Your task to perform on an android device: Open the map Image 0: 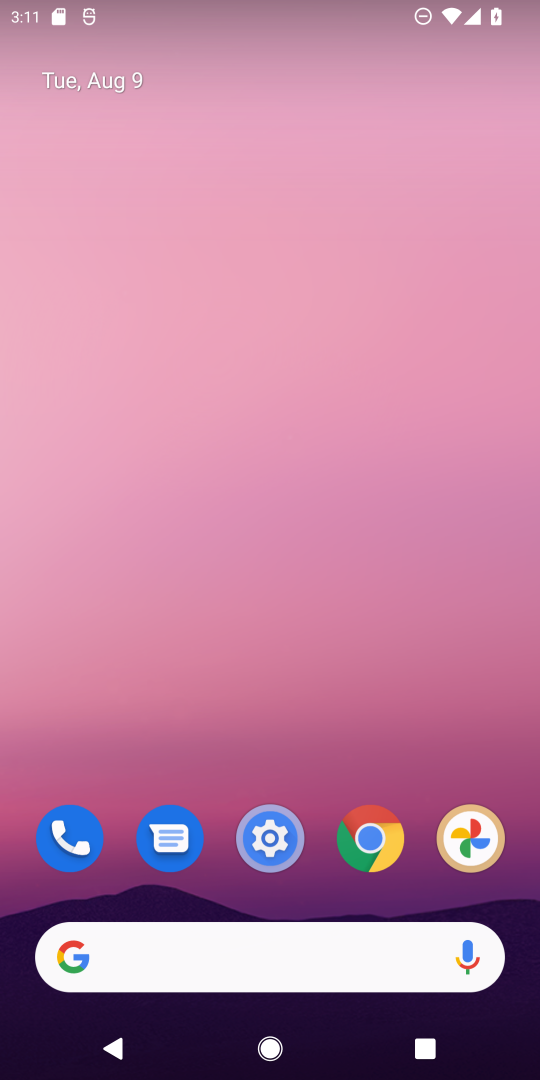
Step 0: press home button
Your task to perform on an android device: Open the map Image 1: 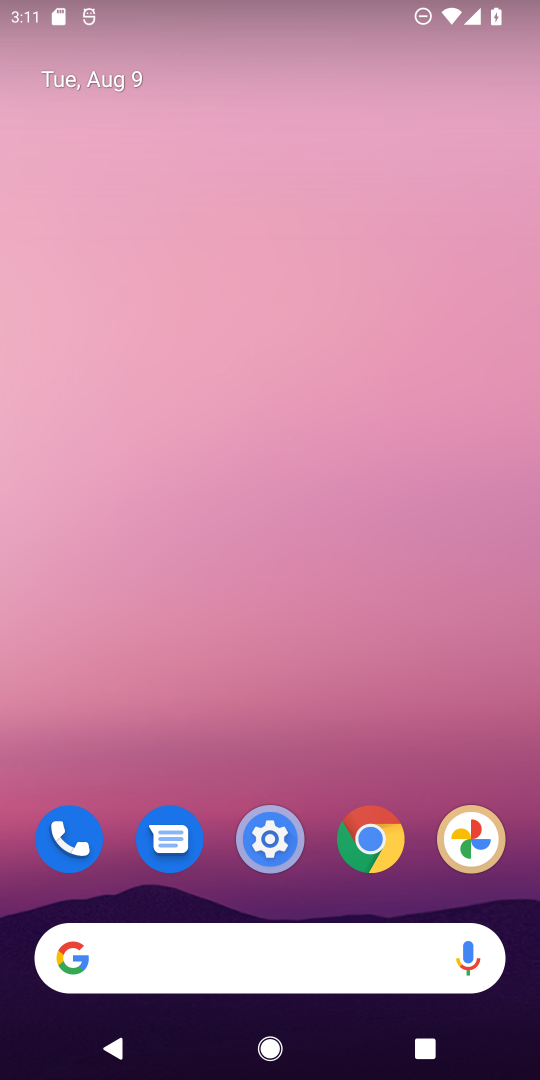
Step 1: drag from (302, 707) to (317, 50)
Your task to perform on an android device: Open the map Image 2: 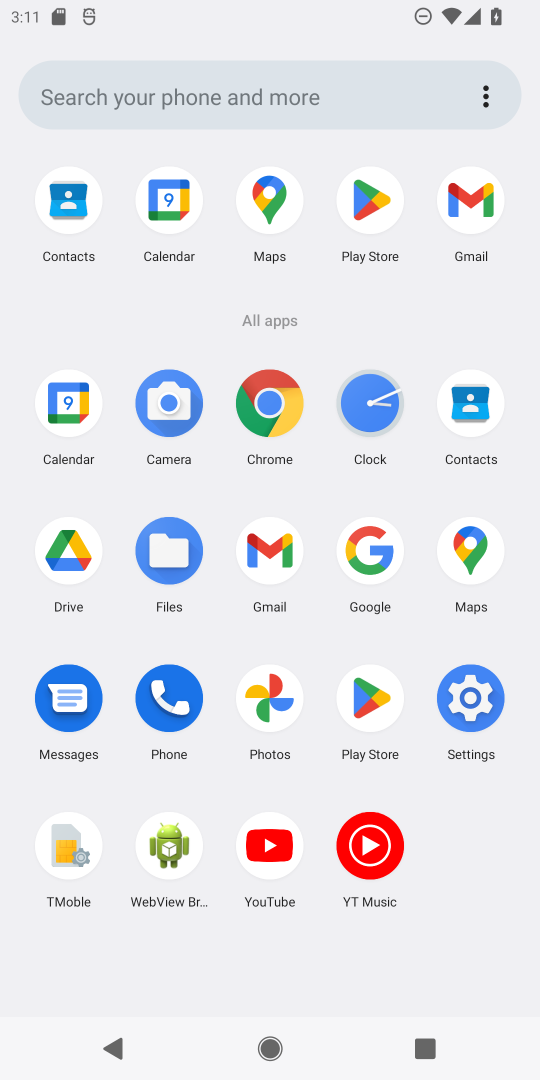
Step 2: click (471, 524)
Your task to perform on an android device: Open the map Image 3: 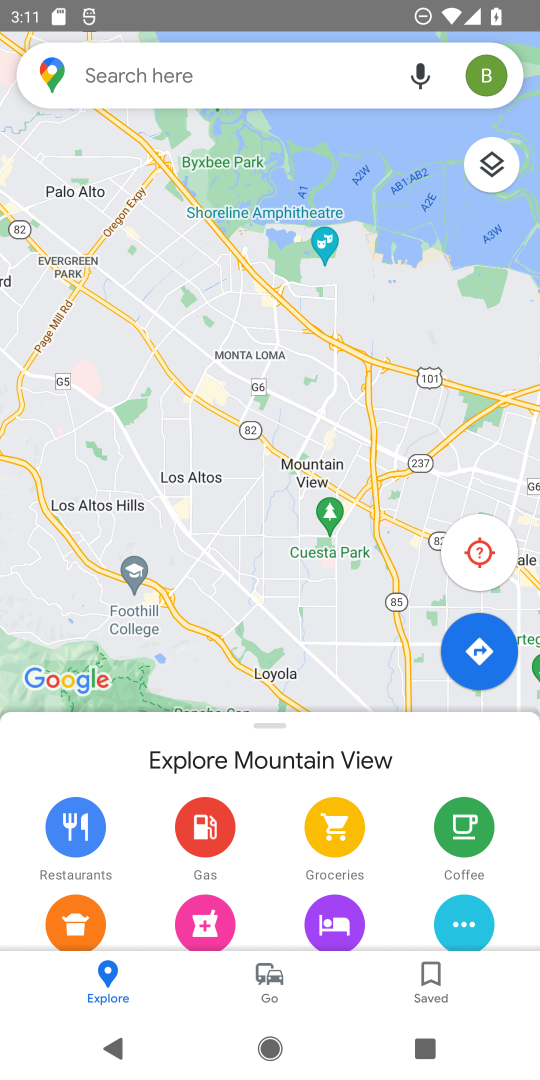
Step 3: task complete